Your task to perform on an android device: open device folders in google photos Image 0: 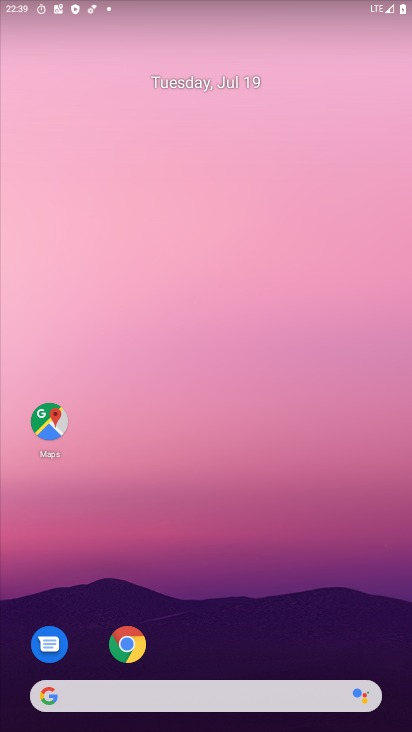
Step 0: press home button
Your task to perform on an android device: open device folders in google photos Image 1: 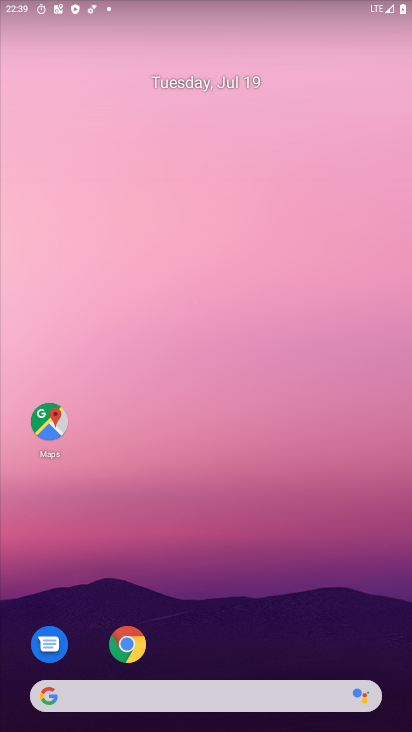
Step 1: drag from (250, 655) to (310, 221)
Your task to perform on an android device: open device folders in google photos Image 2: 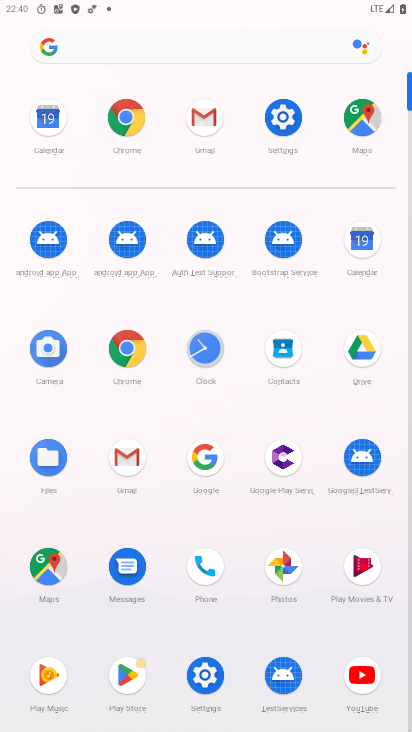
Step 2: click (279, 554)
Your task to perform on an android device: open device folders in google photos Image 3: 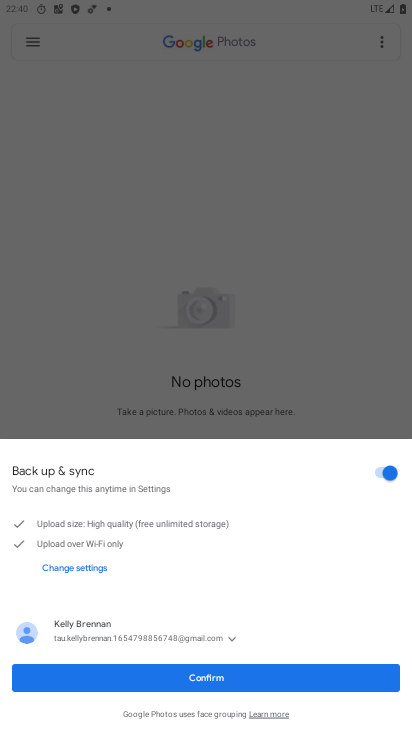
Step 3: click (253, 665)
Your task to perform on an android device: open device folders in google photos Image 4: 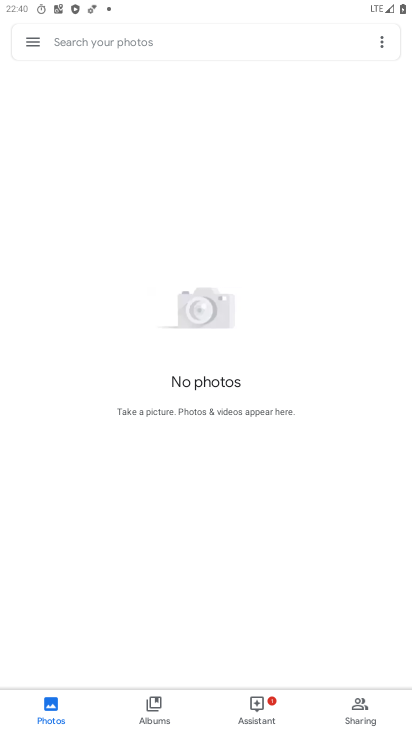
Step 4: click (38, 36)
Your task to perform on an android device: open device folders in google photos Image 5: 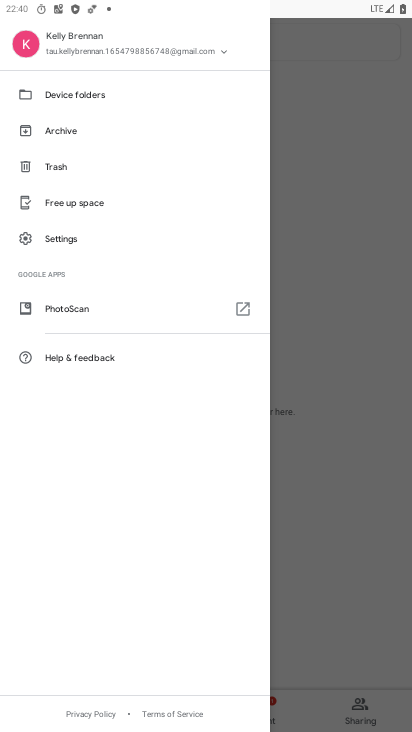
Step 5: click (30, 92)
Your task to perform on an android device: open device folders in google photos Image 6: 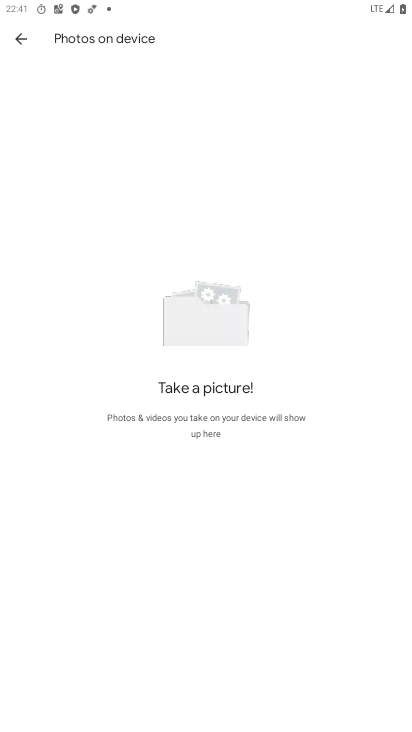
Step 6: task complete